Your task to perform on an android device: snooze an email in the gmail app Image 0: 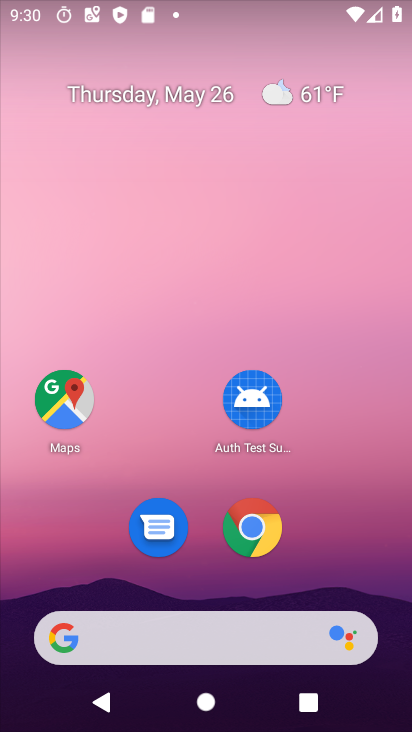
Step 0: drag from (385, 506) to (360, 34)
Your task to perform on an android device: snooze an email in the gmail app Image 1: 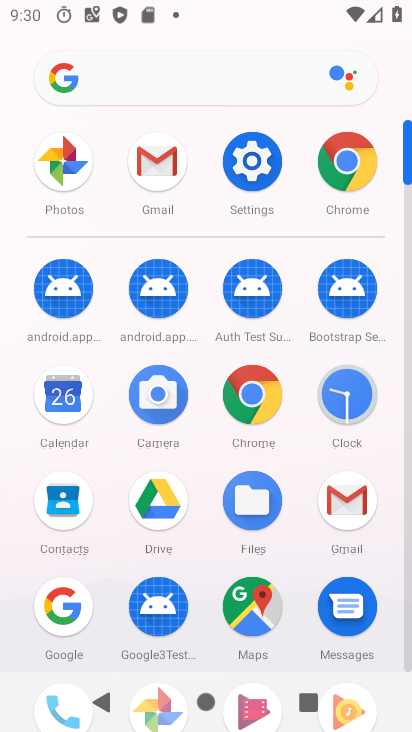
Step 1: click (158, 158)
Your task to perform on an android device: snooze an email in the gmail app Image 2: 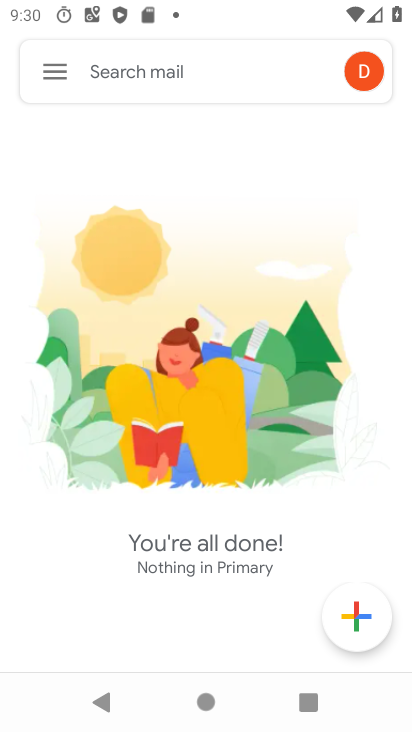
Step 2: click (69, 76)
Your task to perform on an android device: snooze an email in the gmail app Image 3: 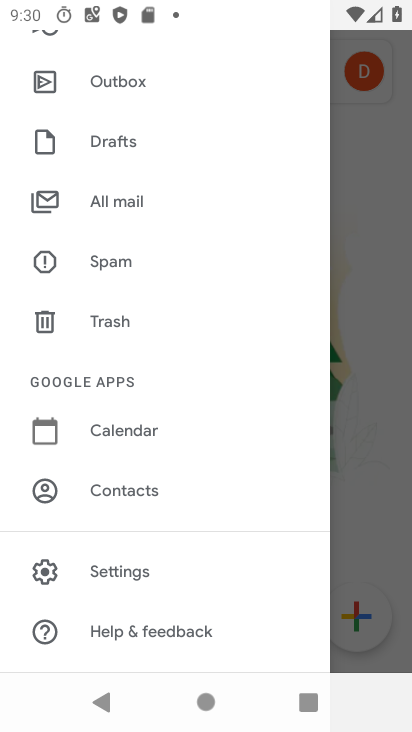
Step 3: click (368, 255)
Your task to perform on an android device: snooze an email in the gmail app Image 4: 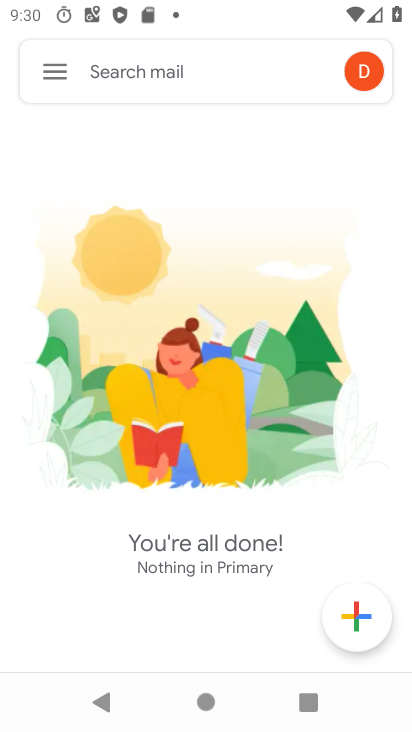
Step 4: click (55, 80)
Your task to perform on an android device: snooze an email in the gmail app Image 5: 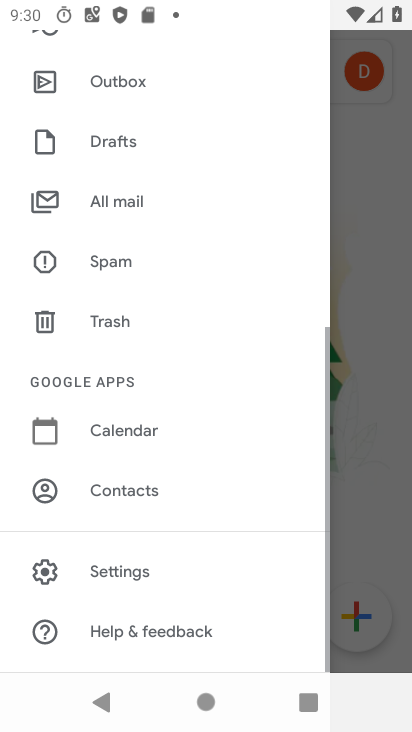
Step 5: click (106, 216)
Your task to perform on an android device: snooze an email in the gmail app Image 6: 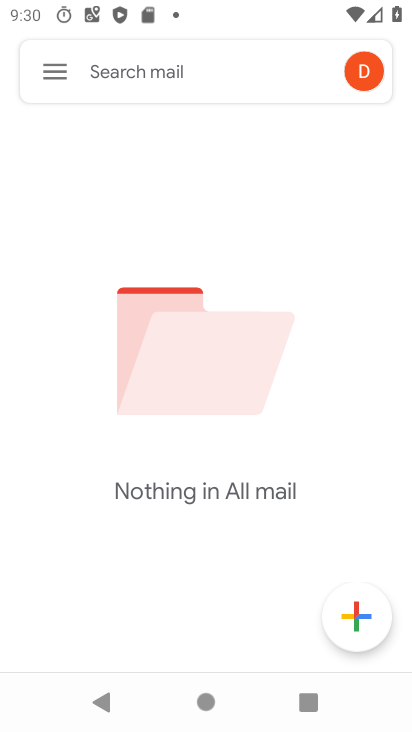
Step 6: task complete